Your task to perform on an android device: Search for "alienware aurora" on walmart, select the first entry, and add it to the cart. Image 0: 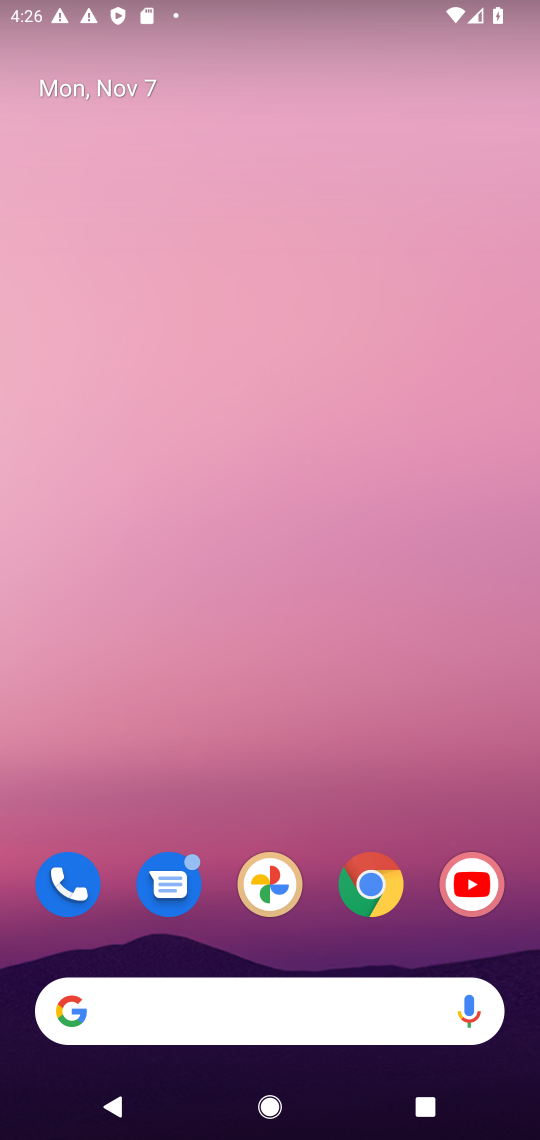
Step 0: drag from (316, 955) to (261, 115)
Your task to perform on an android device: Search for "alienware aurora" on walmart, select the first entry, and add it to the cart. Image 1: 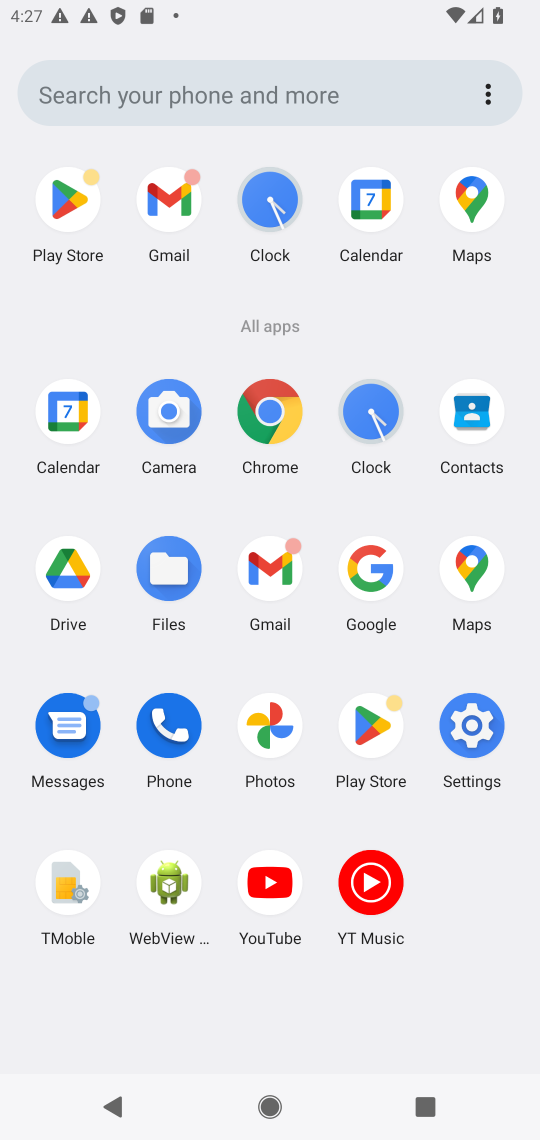
Step 1: click (273, 413)
Your task to perform on an android device: Search for "alienware aurora" on walmart, select the first entry, and add it to the cart. Image 2: 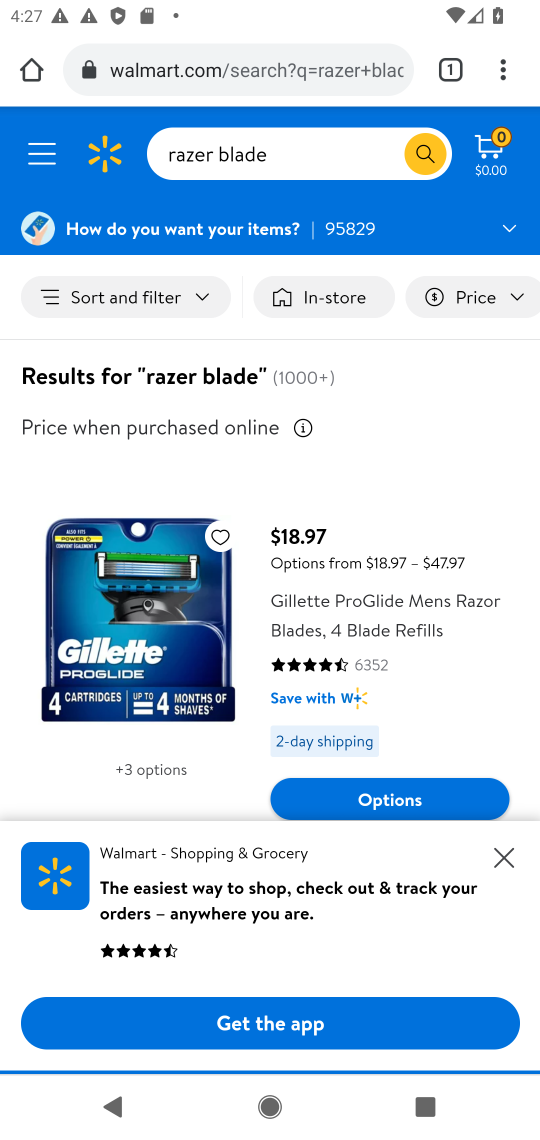
Step 2: click (257, 160)
Your task to perform on an android device: Search for "alienware aurora" on walmart, select the first entry, and add it to the cart. Image 3: 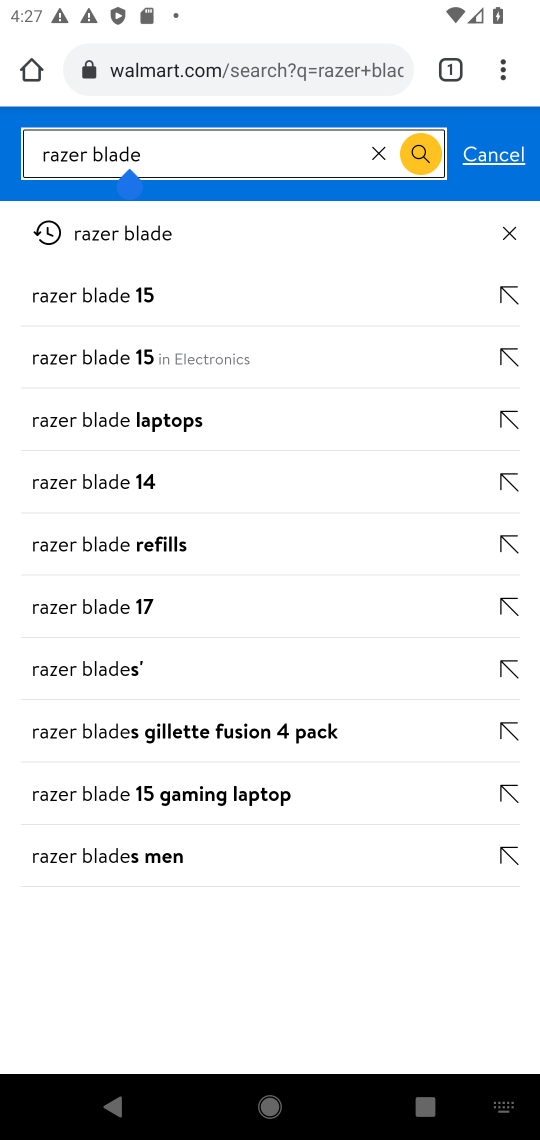
Step 3: click (376, 154)
Your task to perform on an android device: Search for "alienware aurora" on walmart, select the first entry, and add it to the cart. Image 4: 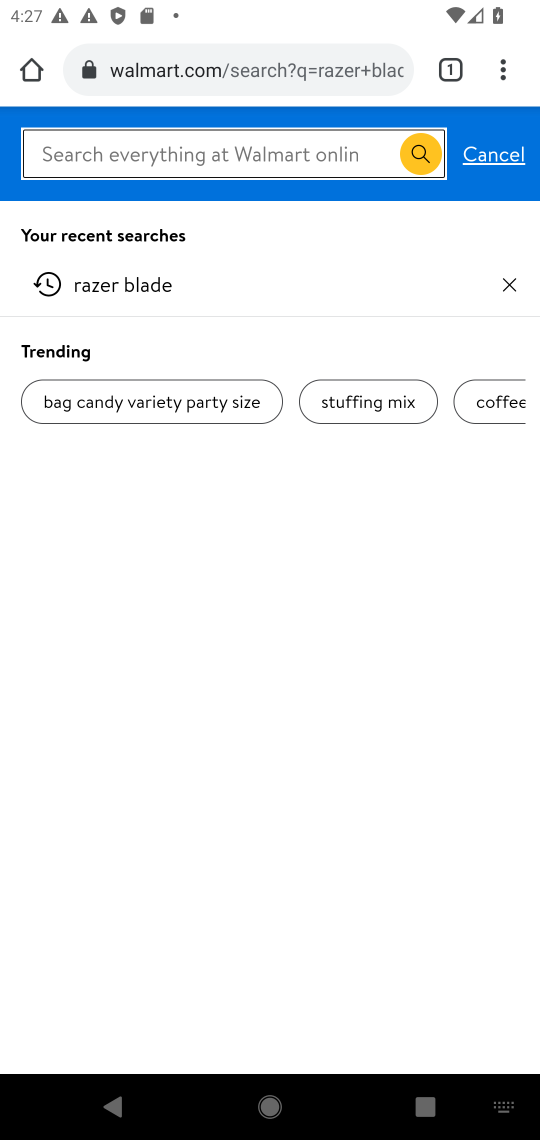
Step 4: type "alienware aurora"
Your task to perform on an android device: Search for "alienware aurora" on walmart, select the first entry, and add it to the cart. Image 5: 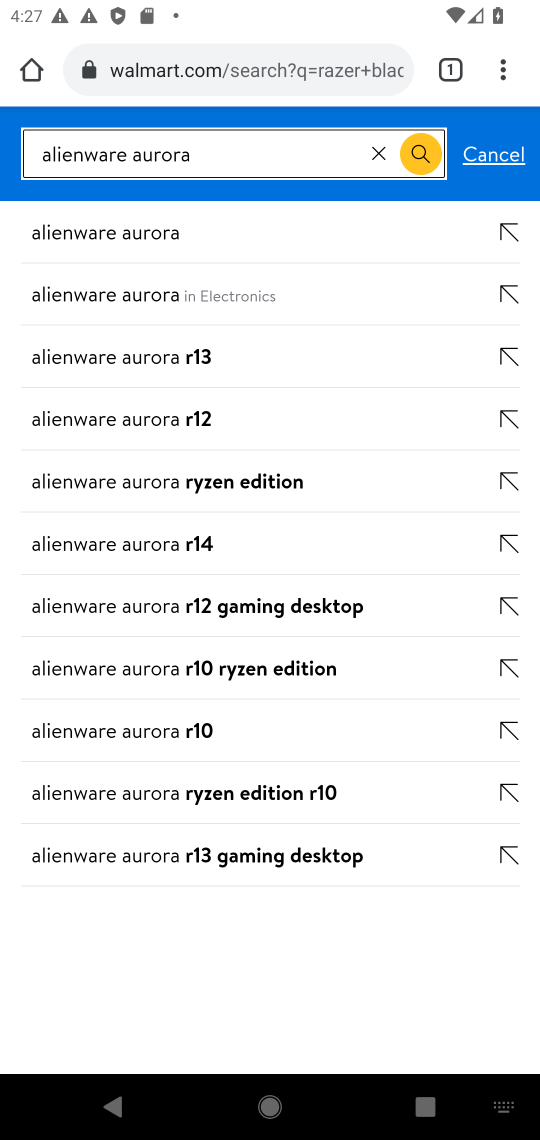
Step 5: press enter
Your task to perform on an android device: Search for "alienware aurora" on walmart, select the first entry, and add it to the cart. Image 6: 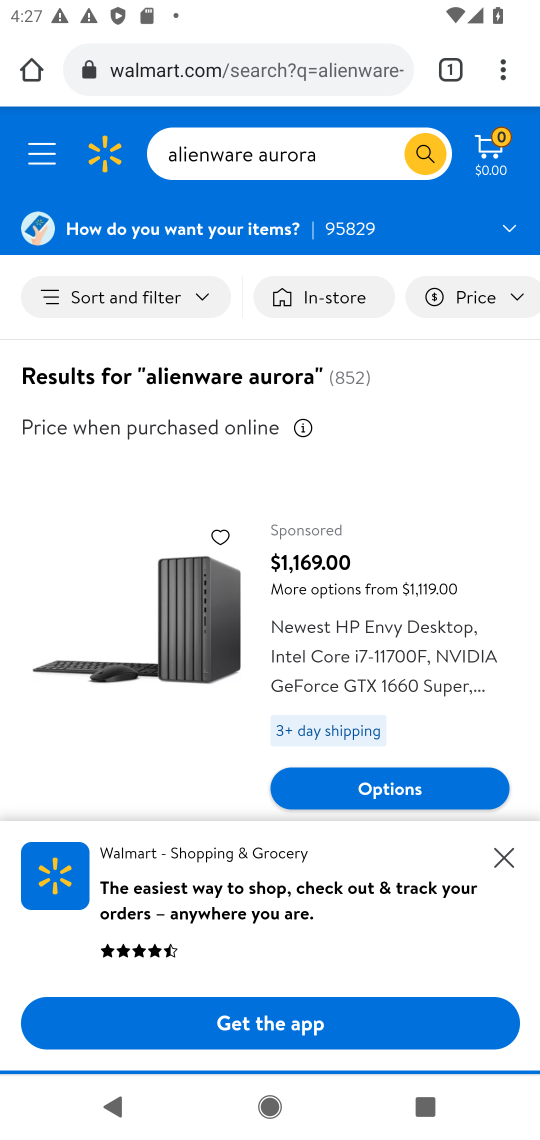
Step 6: drag from (327, 677) to (305, 133)
Your task to perform on an android device: Search for "alienware aurora" on walmart, select the first entry, and add it to the cart. Image 7: 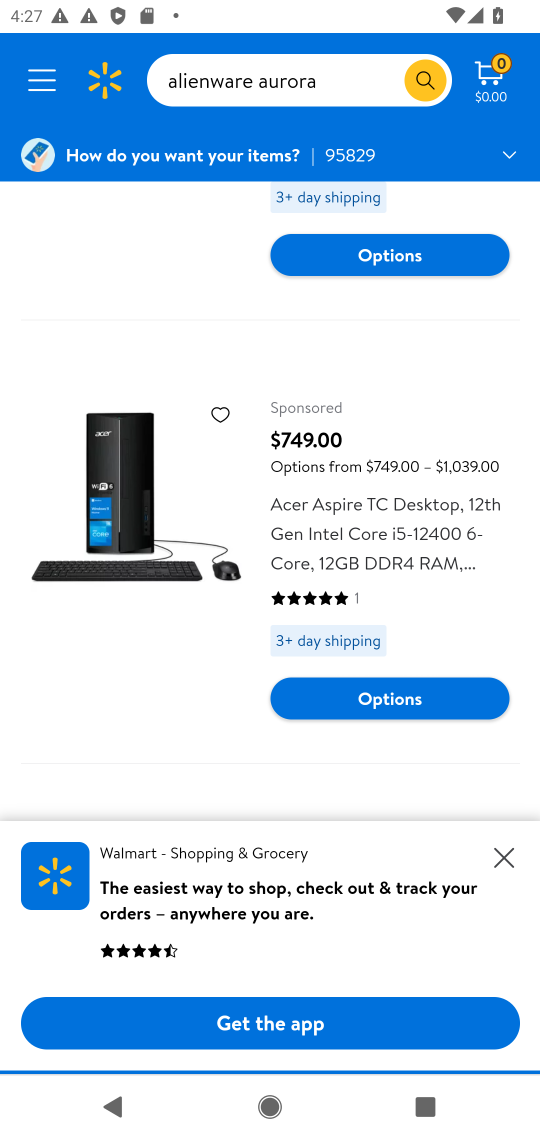
Step 7: drag from (407, 451) to (359, 204)
Your task to perform on an android device: Search for "alienware aurora" on walmart, select the first entry, and add it to the cart. Image 8: 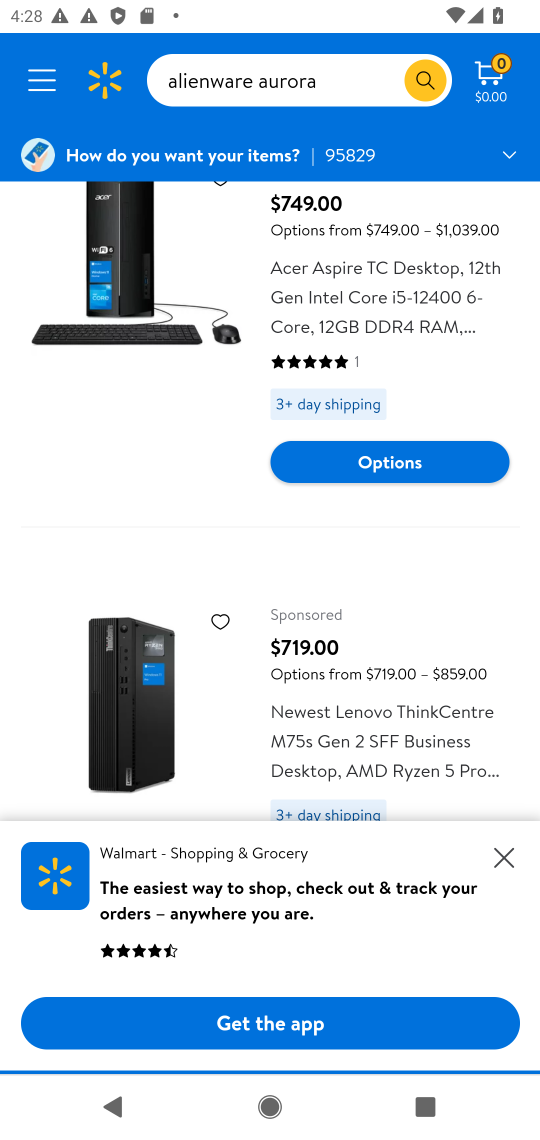
Step 8: drag from (263, 736) to (232, 173)
Your task to perform on an android device: Search for "alienware aurora" on walmart, select the first entry, and add it to the cart. Image 9: 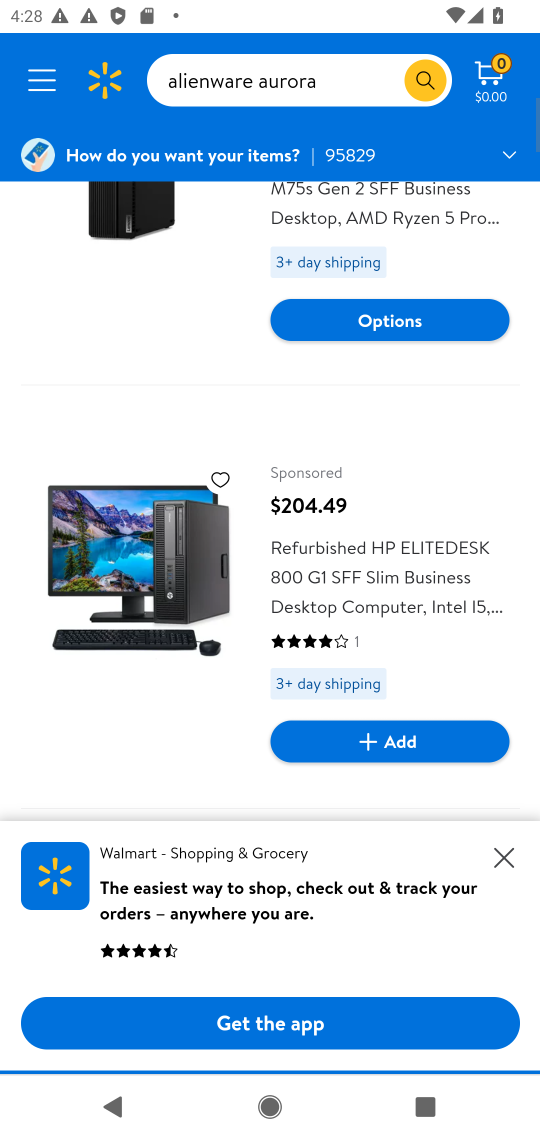
Step 9: drag from (375, 700) to (396, 262)
Your task to perform on an android device: Search for "alienware aurora" on walmart, select the first entry, and add it to the cart. Image 10: 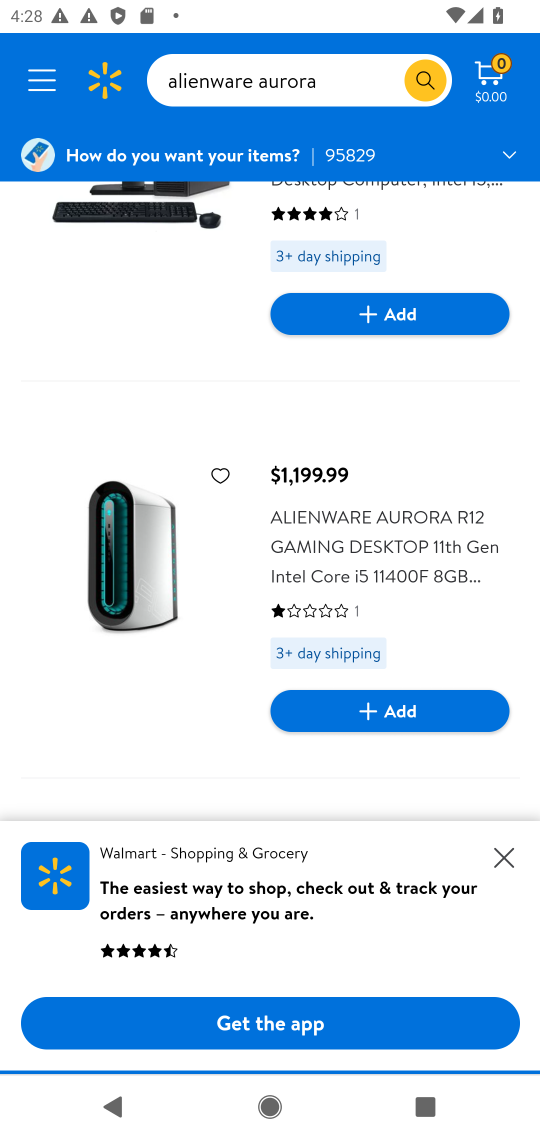
Step 10: drag from (320, 782) to (304, 622)
Your task to perform on an android device: Search for "alienware aurora" on walmart, select the first entry, and add it to the cart. Image 11: 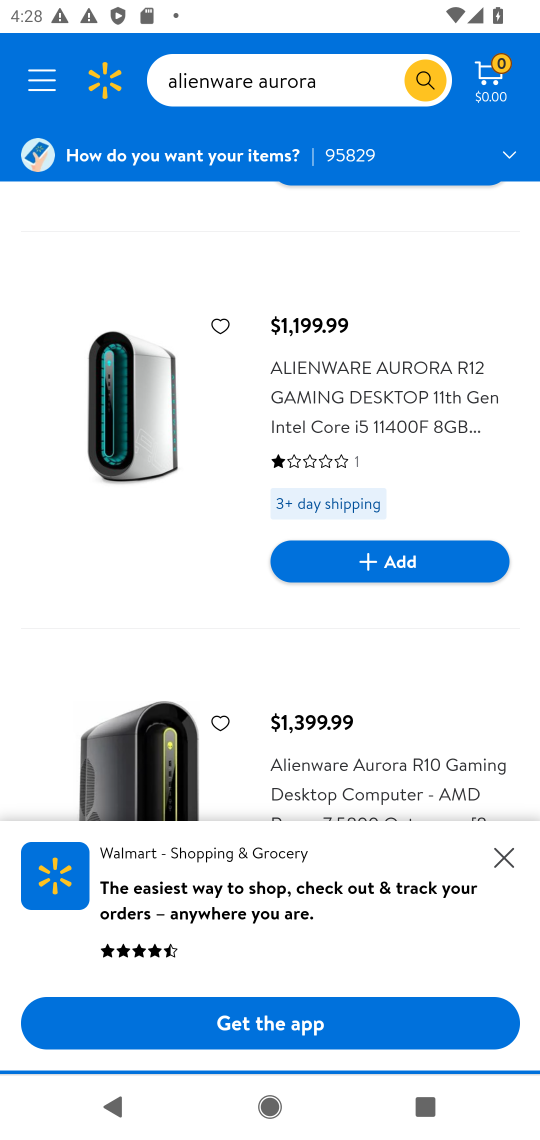
Step 11: click (424, 568)
Your task to perform on an android device: Search for "alienware aurora" on walmart, select the first entry, and add it to the cart. Image 12: 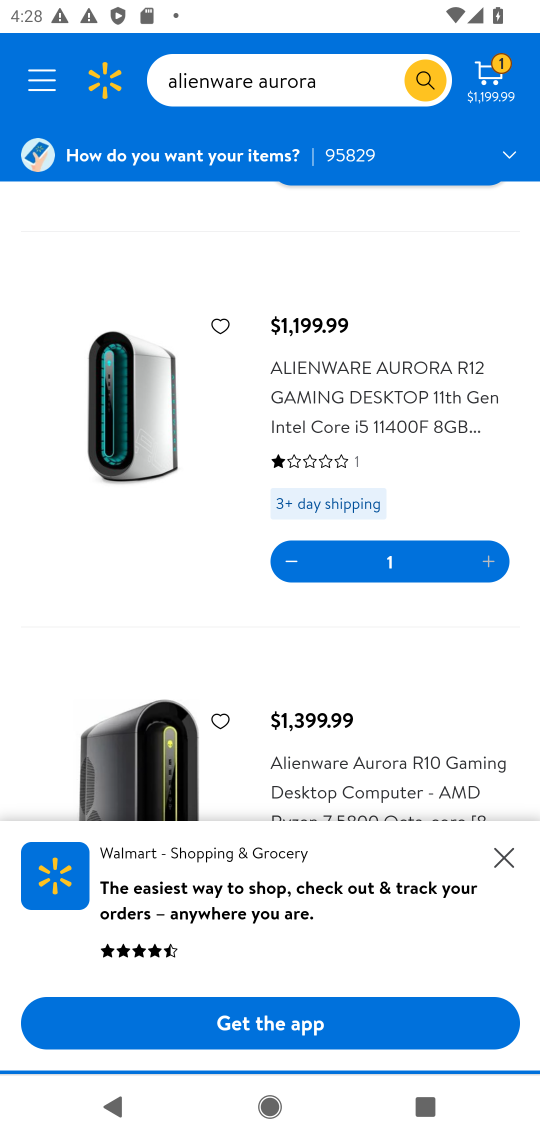
Step 12: task complete